Your task to perform on an android device: Go to Yahoo.com Image 0: 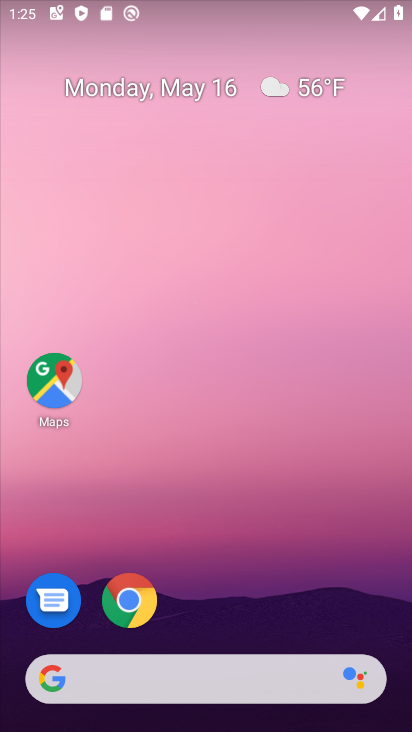
Step 0: click (126, 605)
Your task to perform on an android device: Go to Yahoo.com Image 1: 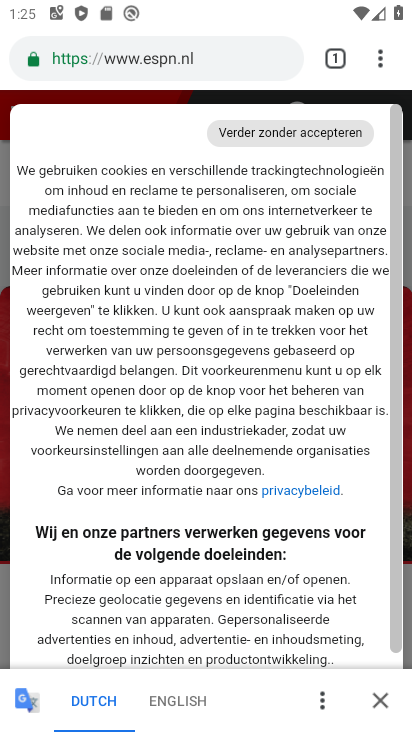
Step 1: click (356, 68)
Your task to perform on an android device: Go to Yahoo.com Image 2: 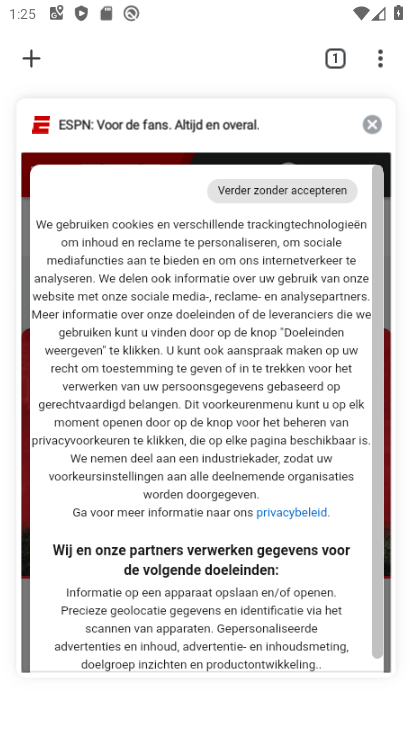
Step 2: click (368, 117)
Your task to perform on an android device: Go to Yahoo.com Image 3: 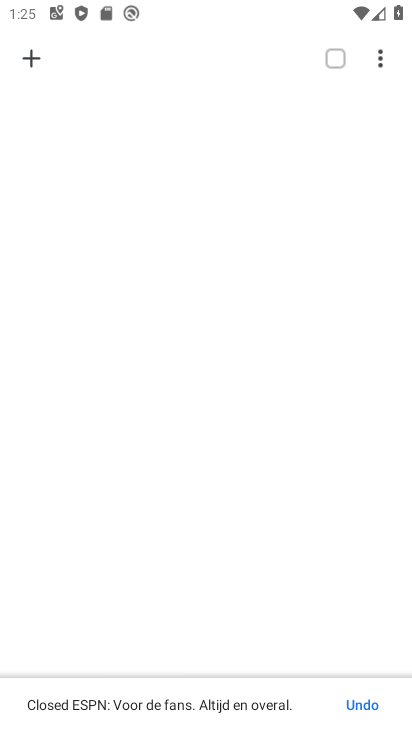
Step 3: click (26, 63)
Your task to perform on an android device: Go to Yahoo.com Image 4: 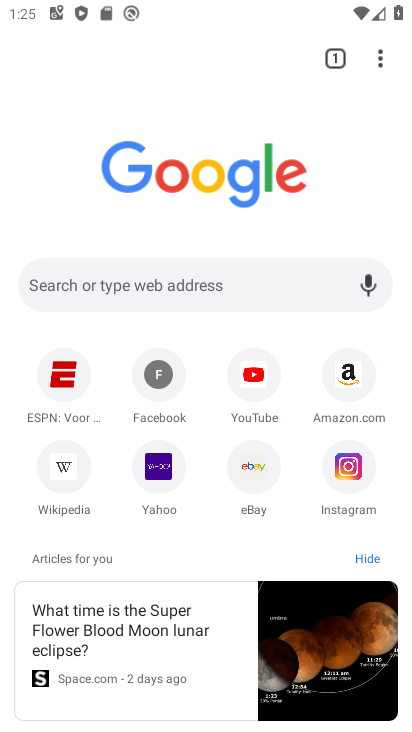
Step 4: click (168, 453)
Your task to perform on an android device: Go to Yahoo.com Image 5: 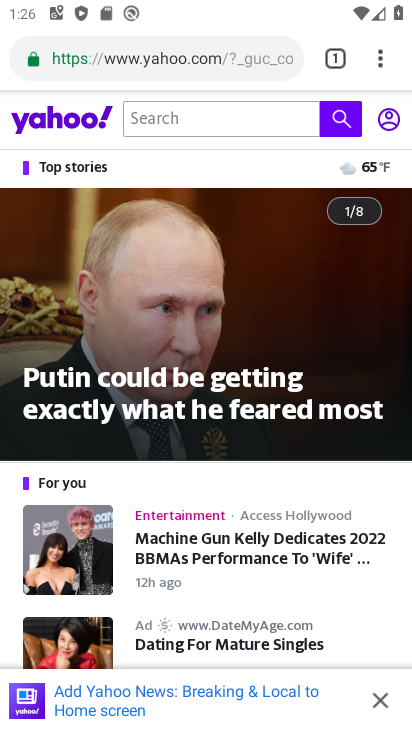
Step 5: task complete